Your task to perform on an android device: Go to display settings Image 0: 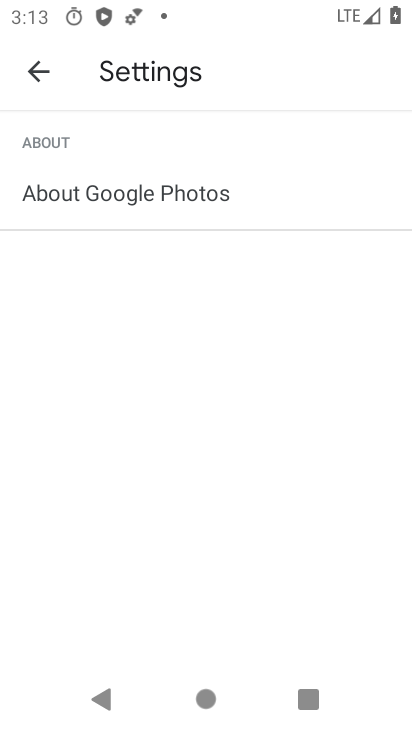
Step 0: drag from (250, 432) to (265, 63)
Your task to perform on an android device: Go to display settings Image 1: 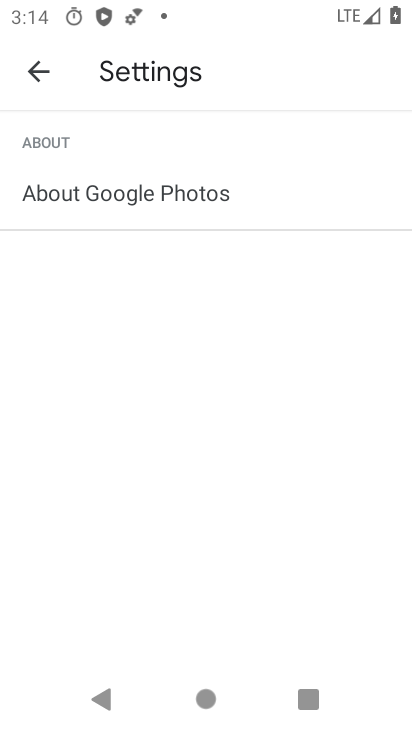
Step 1: press home button
Your task to perform on an android device: Go to display settings Image 2: 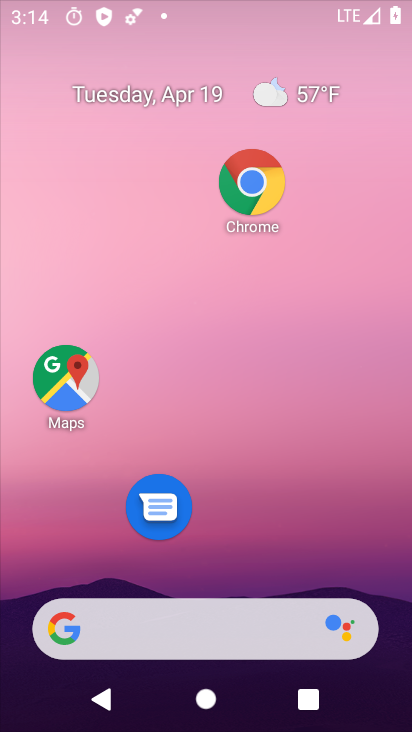
Step 2: drag from (221, 655) to (302, 69)
Your task to perform on an android device: Go to display settings Image 3: 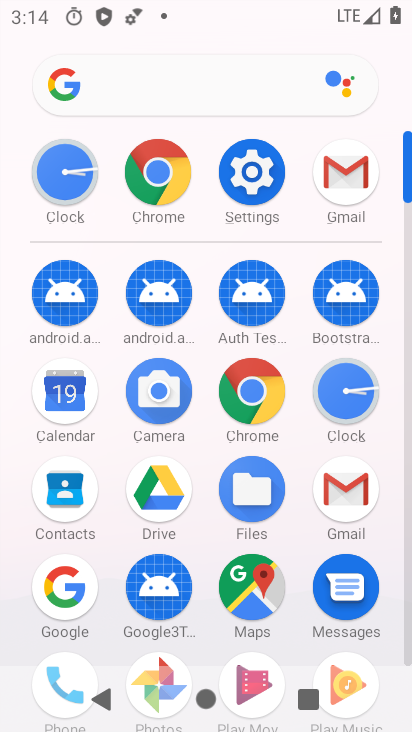
Step 3: click (267, 189)
Your task to perform on an android device: Go to display settings Image 4: 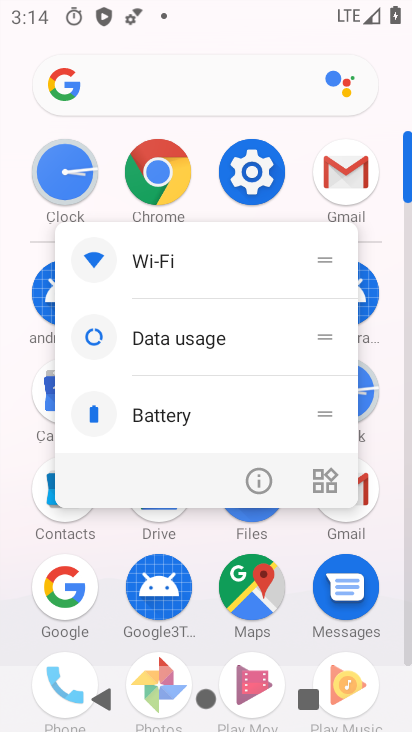
Step 4: click (268, 191)
Your task to perform on an android device: Go to display settings Image 5: 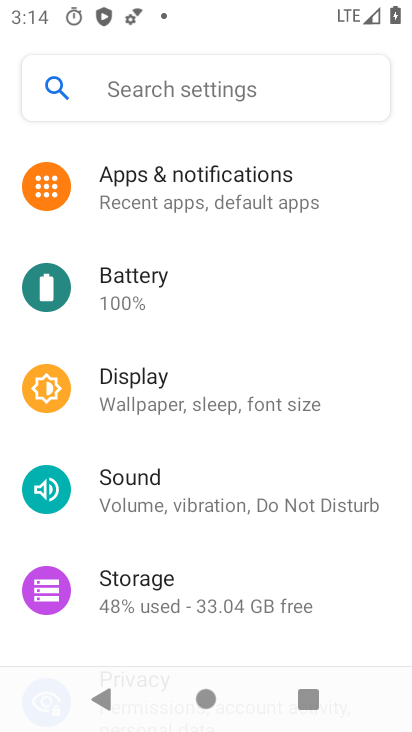
Step 5: click (199, 404)
Your task to perform on an android device: Go to display settings Image 6: 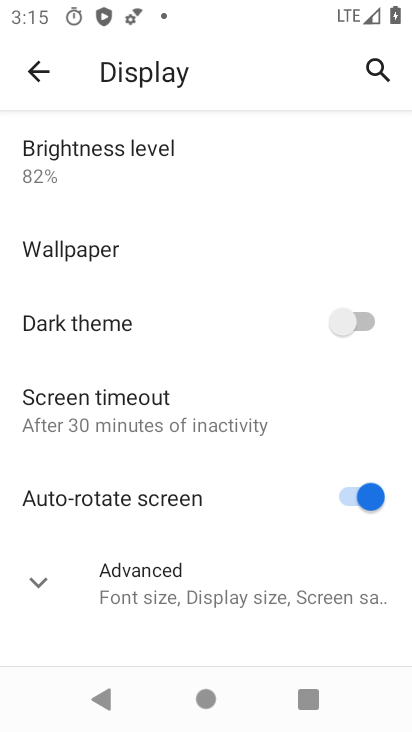
Step 6: task complete